Your task to perform on an android device: turn vacation reply on in the gmail app Image 0: 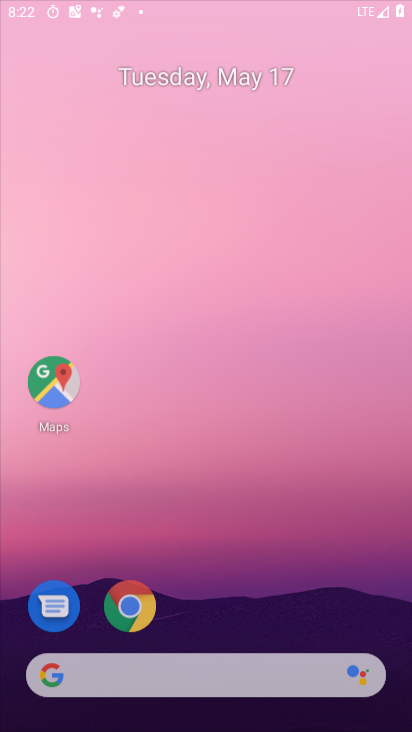
Step 0: click (245, 625)
Your task to perform on an android device: turn vacation reply on in the gmail app Image 1: 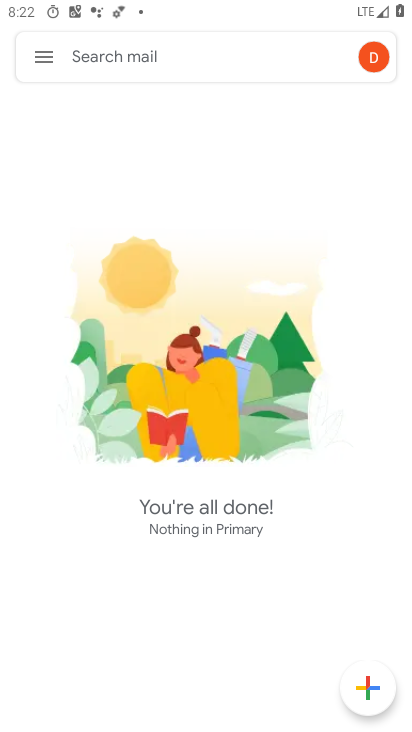
Step 1: click (51, 62)
Your task to perform on an android device: turn vacation reply on in the gmail app Image 2: 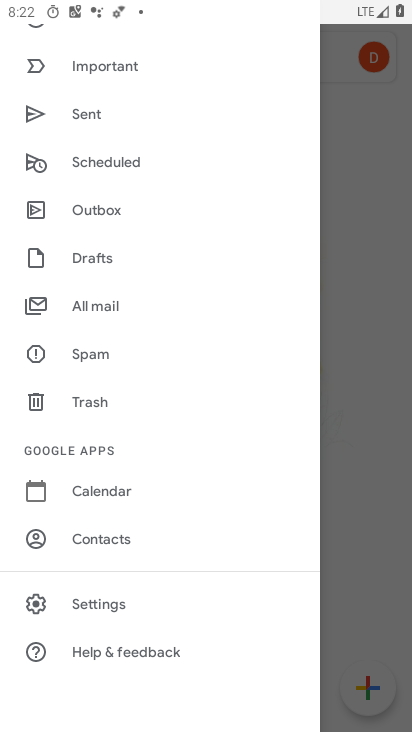
Step 2: click (136, 605)
Your task to perform on an android device: turn vacation reply on in the gmail app Image 3: 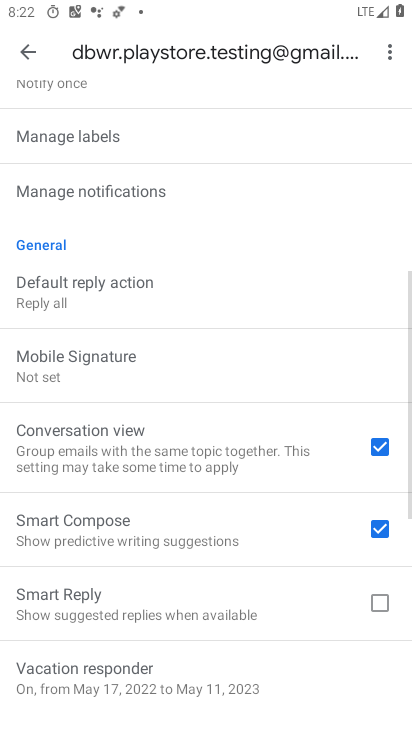
Step 3: click (173, 677)
Your task to perform on an android device: turn vacation reply on in the gmail app Image 4: 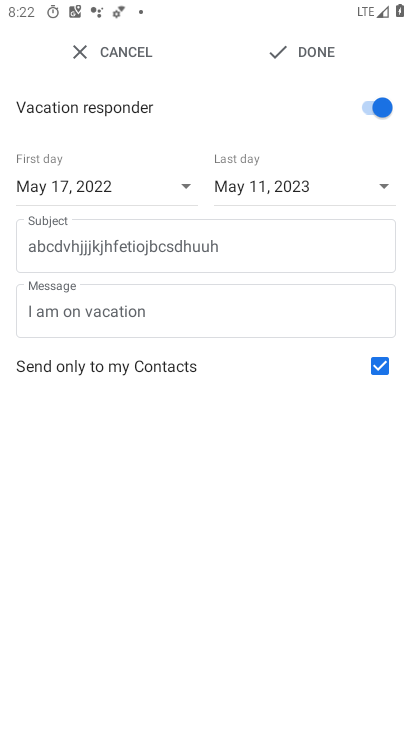
Step 4: click (291, 49)
Your task to perform on an android device: turn vacation reply on in the gmail app Image 5: 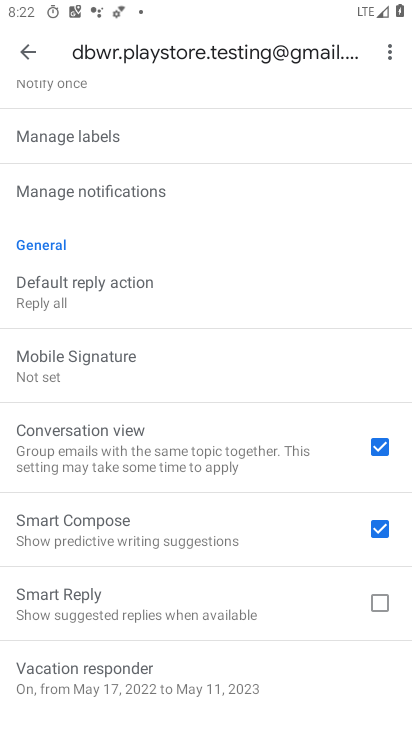
Step 5: task complete